Your task to perform on an android device: create a new album in the google photos Image 0: 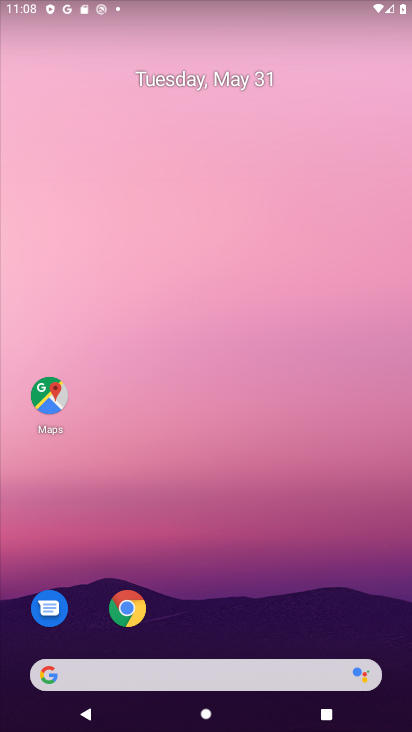
Step 0: drag from (321, 574) to (270, 17)
Your task to perform on an android device: create a new album in the google photos Image 1: 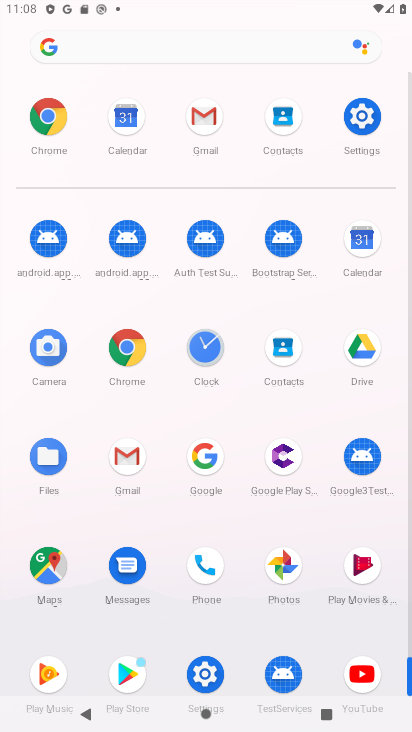
Step 1: click (286, 584)
Your task to perform on an android device: create a new album in the google photos Image 2: 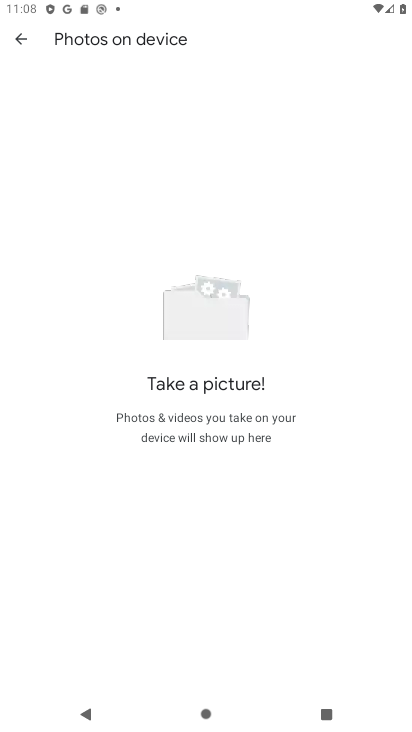
Step 2: click (20, 40)
Your task to perform on an android device: create a new album in the google photos Image 3: 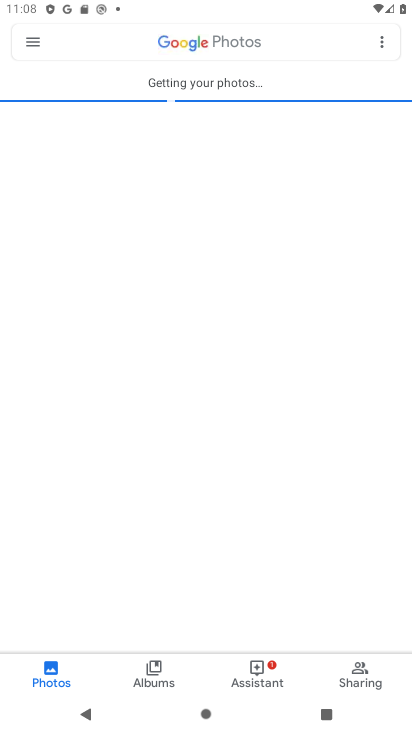
Step 3: click (20, 40)
Your task to perform on an android device: create a new album in the google photos Image 4: 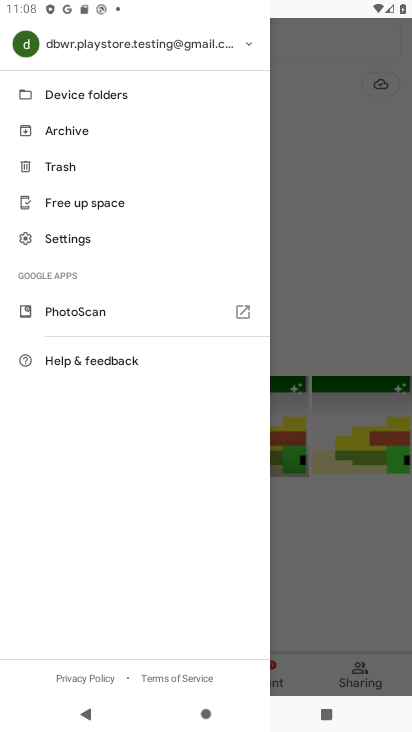
Step 4: click (364, 473)
Your task to perform on an android device: create a new album in the google photos Image 5: 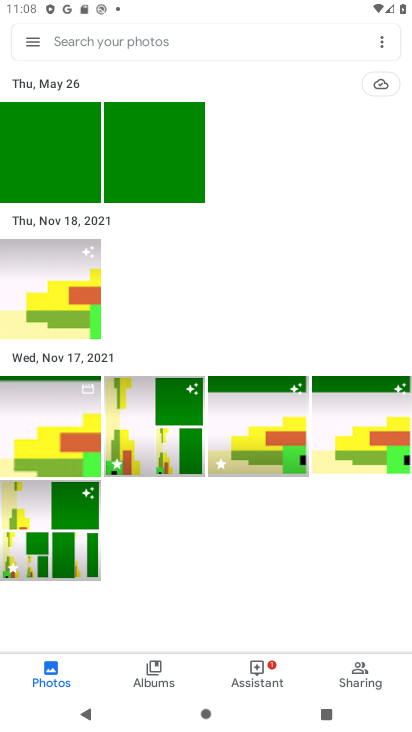
Step 5: click (353, 454)
Your task to perform on an android device: create a new album in the google photos Image 6: 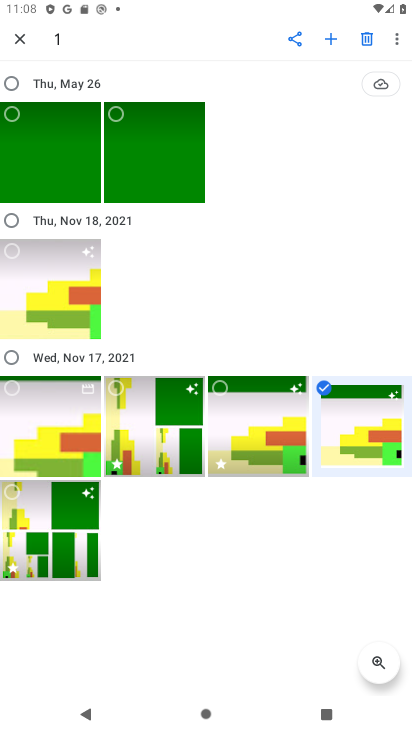
Step 6: click (205, 448)
Your task to perform on an android device: create a new album in the google photos Image 7: 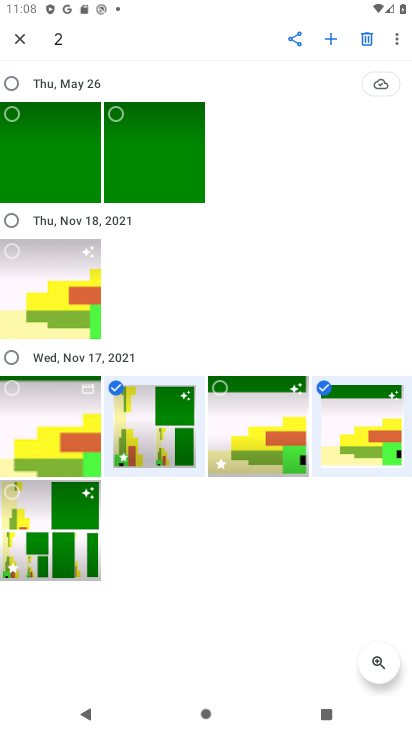
Step 7: click (140, 444)
Your task to perform on an android device: create a new album in the google photos Image 8: 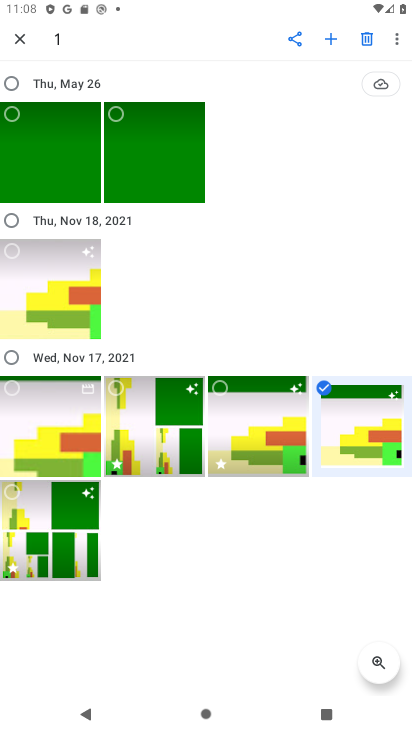
Step 8: click (71, 442)
Your task to perform on an android device: create a new album in the google photos Image 9: 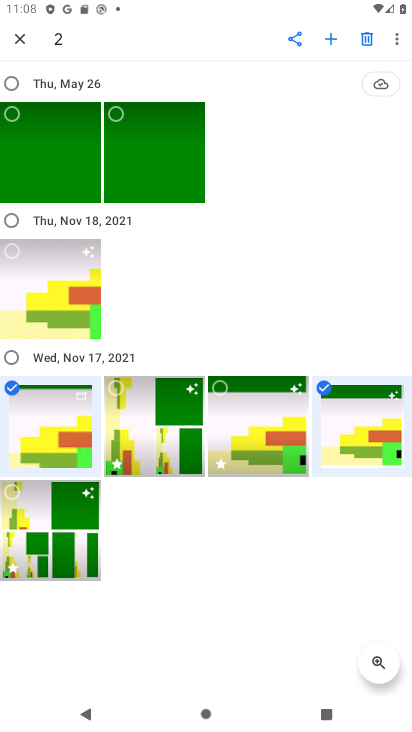
Step 9: click (42, 282)
Your task to perform on an android device: create a new album in the google photos Image 10: 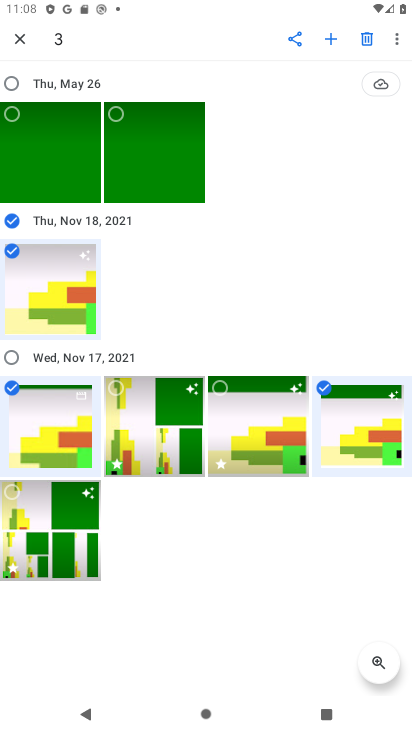
Step 10: click (58, 186)
Your task to perform on an android device: create a new album in the google photos Image 11: 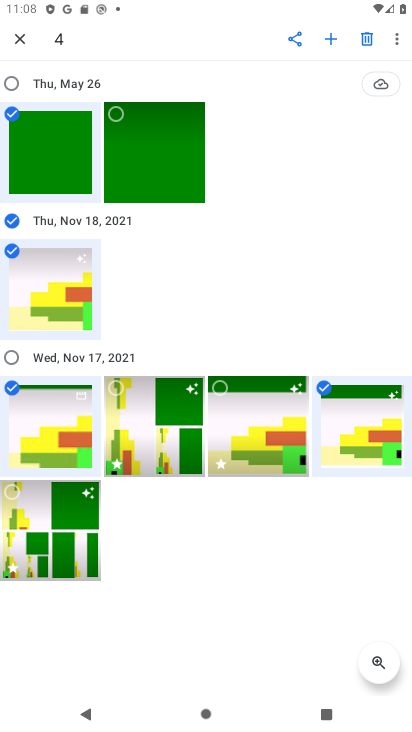
Step 11: click (103, 175)
Your task to perform on an android device: create a new album in the google photos Image 12: 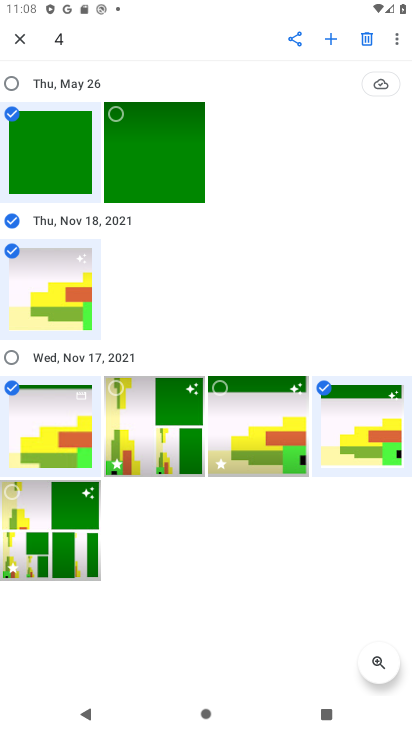
Step 12: click (332, 37)
Your task to perform on an android device: create a new album in the google photos Image 13: 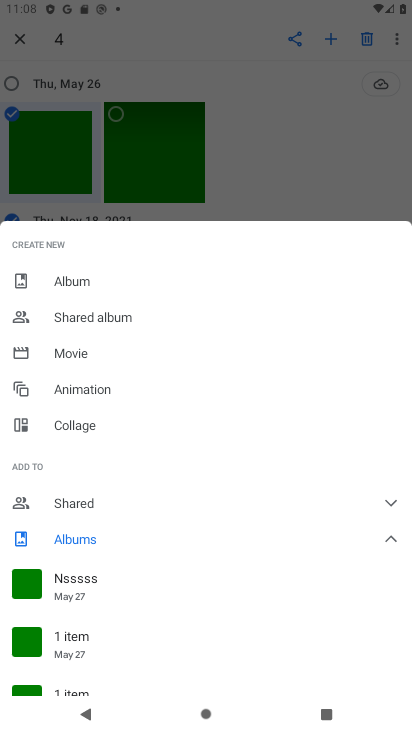
Step 13: click (51, 274)
Your task to perform on an android device: create a new album in the google photos Image 14: 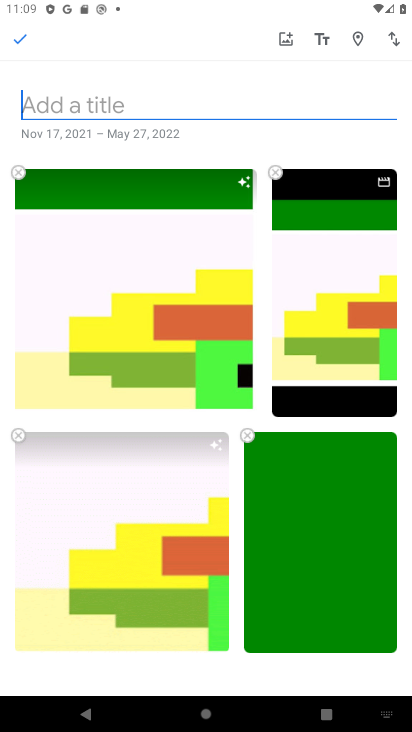
Step 14: type "GP PICS"
Your task to perform on an android device: create a new album in the google photos Image 15: 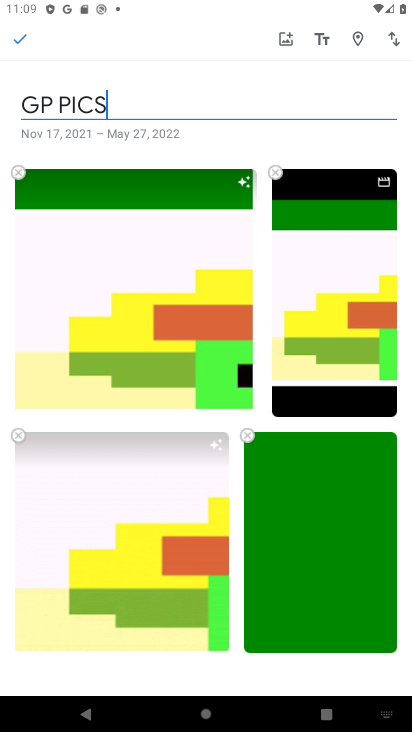
Step 15: click (29, 37)
Your task to perform on an android device: create a new album in the google photos Image 16: 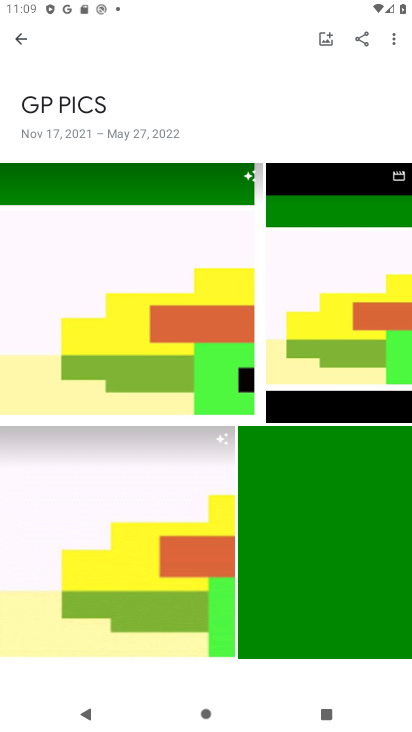
Step 16: task complete